Your task to perform on an android device: change the clock display to analog Image 0: 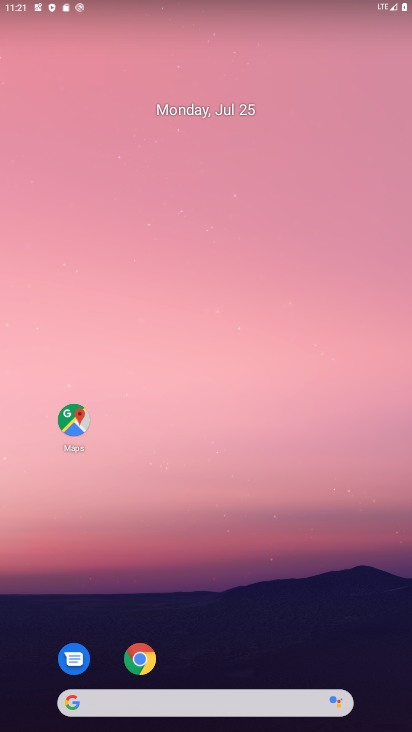
Step 0: drag from (232, 656) to (160, 234)
Your task to perform on an android device: change the clock display to analog Image 1: 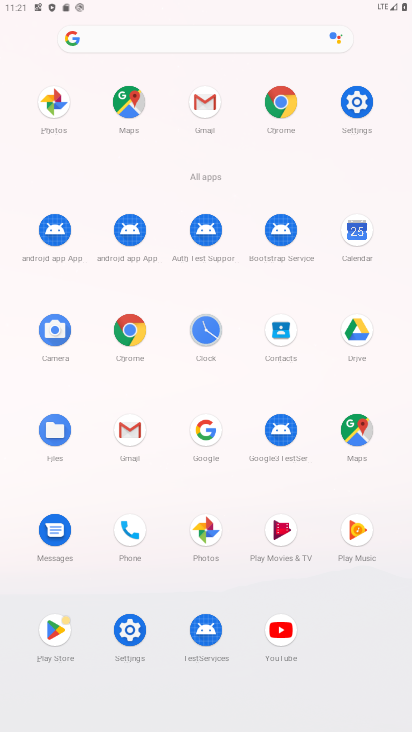
Step 1: click (204, 325)
Your task to perform on an android device: change the clock display to analog Image 2: 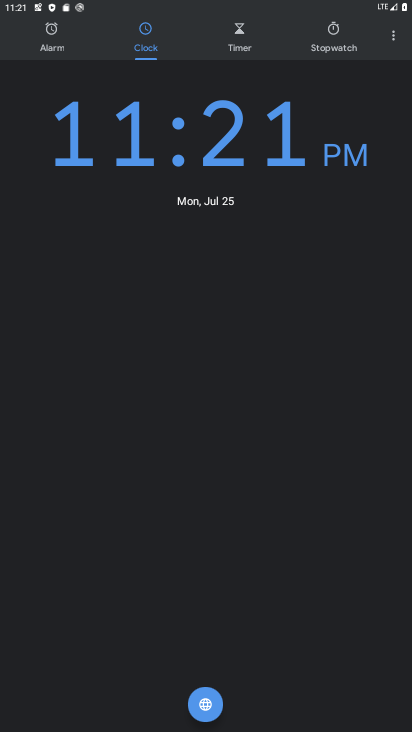
Step 2: click (394, 30)
Your task to perform on an android device: change the clock display to analog Image 3: 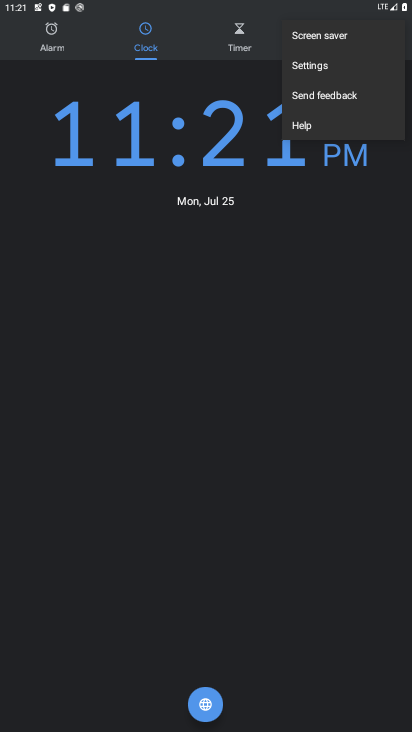
Step 3: click (356, 68)
Your task to perform on an android device: change the clock display to analog Image 4: 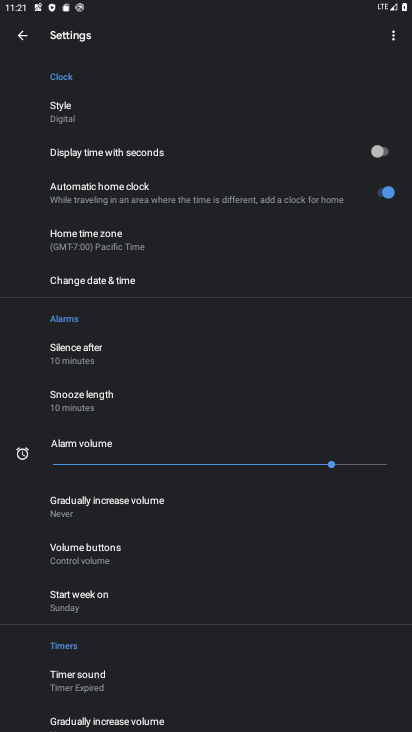
Step 4: click (215, 114)
Your task to perform on an android device: change the clock display to analog Image 5: 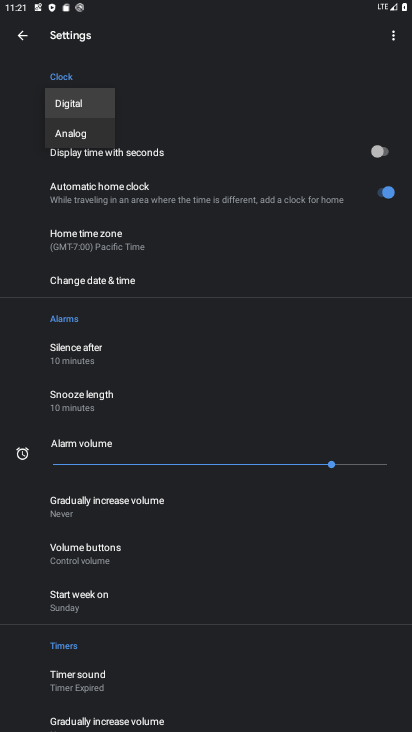
Step 5: click (98, 131)
Your task to perform on an android device: change the clock display to analog Image 6: 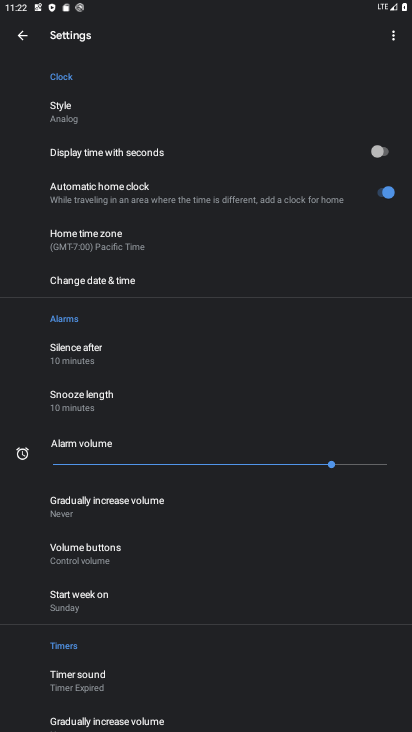
Step 6: task complete